Your task to perform on an android device: add a contact in the contacts app Image 0: 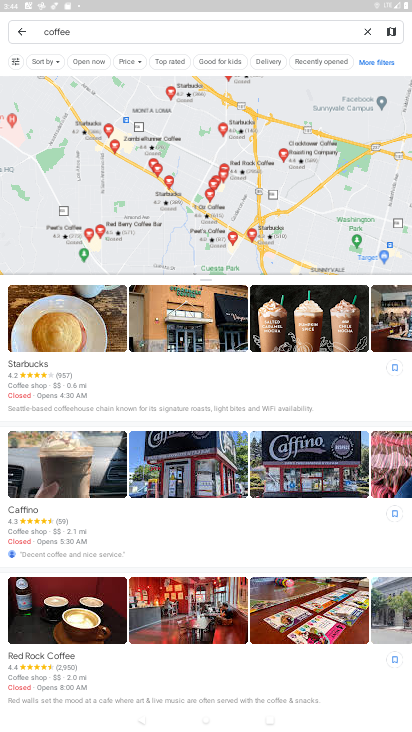
Step 0: press home button
Your task to perform on an android device: add a contact in the contacts app Image 1: 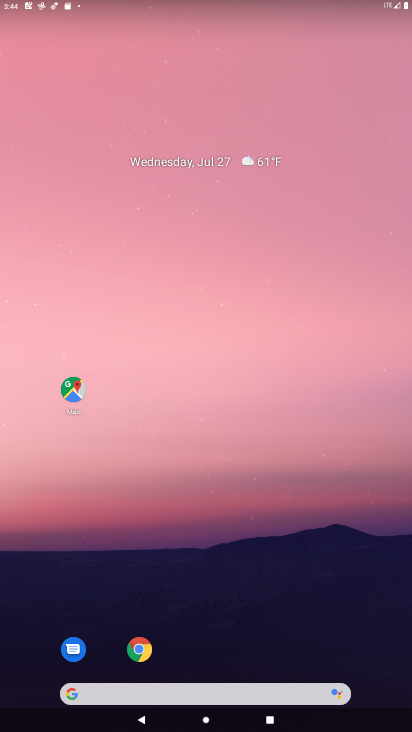
Step 1: drag from (197, 628) to (192, 287)
Your task to perform on an android device: add a contact in the contacts app Image 2: 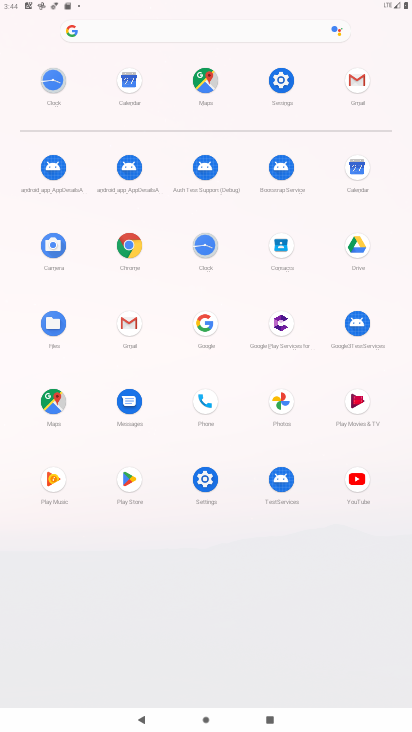
Step 2: click (277, 253)
Your task to perform on an android device: add a contact in the contacts app Image 3: 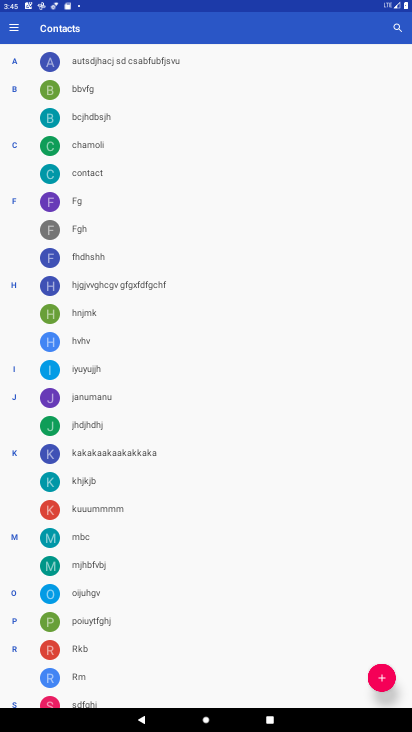
Step 3: press home button
Your task to perform on an android device: add a contact in the contacts app Image 4: 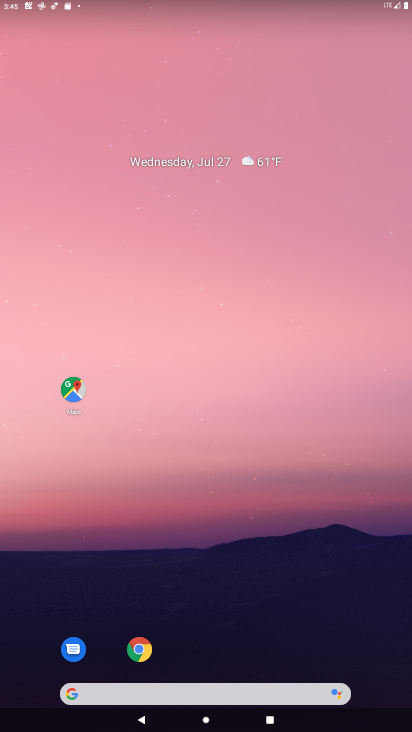
Step 4: drag from (193, 264) to (234, 59)
Your task to perform on an android device: add a contact in the contacts app Image 5: 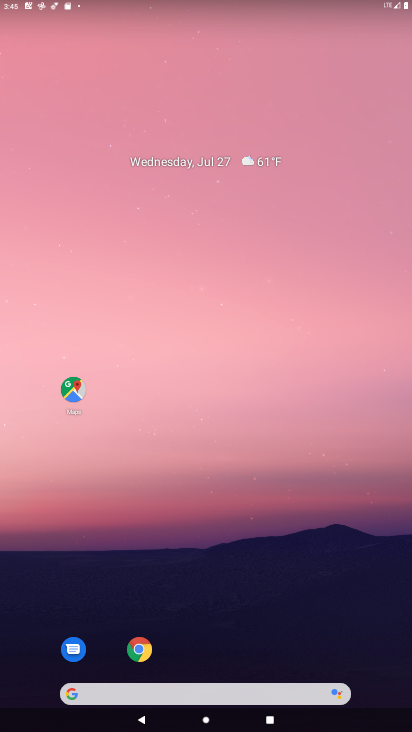
Step 5: drag from (193, 496) to (210, 92)
Your task to perform on an android device: add a contact in the contacts app Image 6: 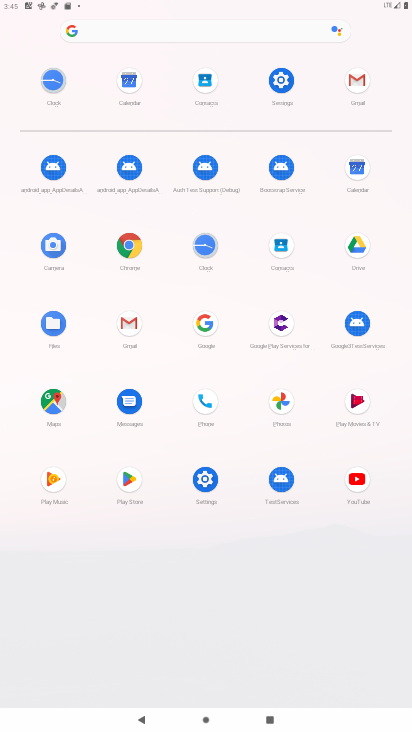
Step 6: click (277, 255)
Your task to perform on an android device: add a contact in the contacts app Image 7: 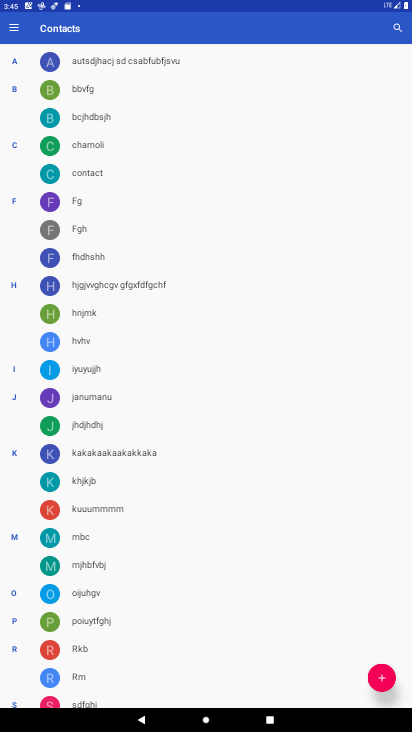
Step 7: click (385, 668)
Your task to perform on an android device: add a contact in the contacts app Image 8: 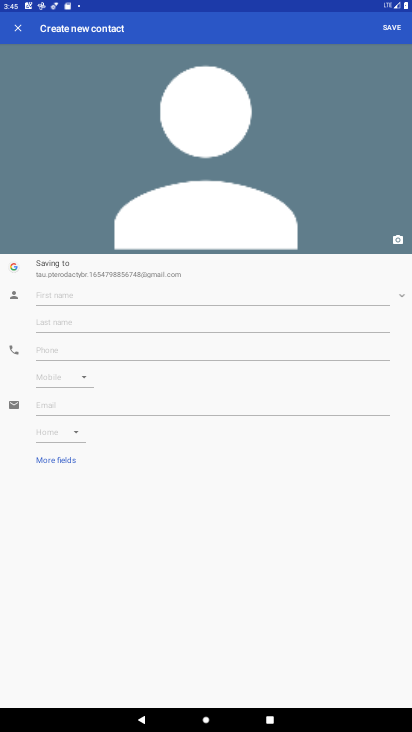
Step 8: click (132, 303)
Your task to perform on an android device: add a contact in the contacts app Image 9: 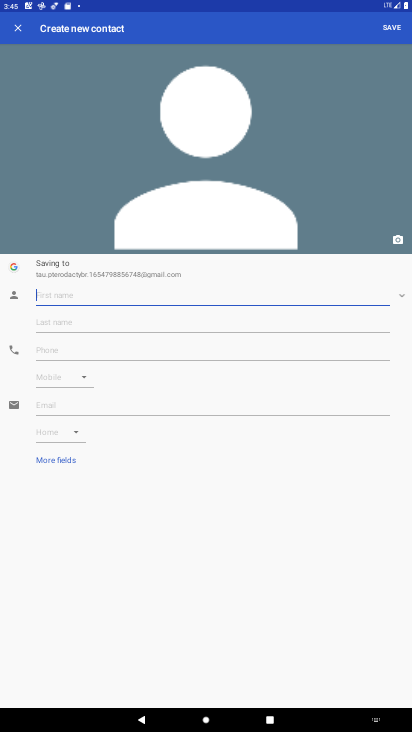
Step 9: type "Niru"
Your task to perform on an android device: add a contact in the contacts app Image 10: 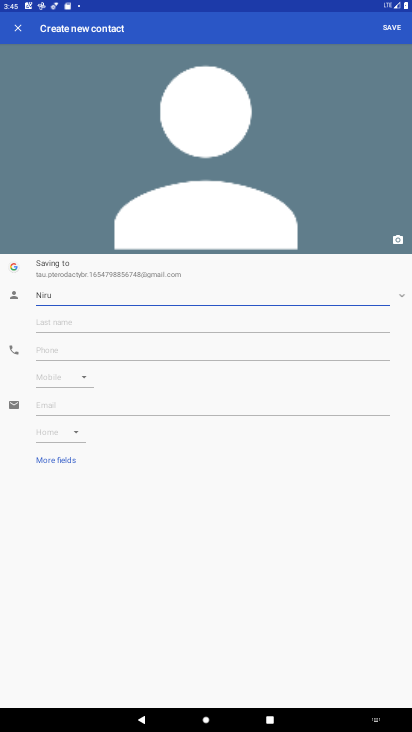
Step 10: click (198, 329)
Your task to perform on an android device: add a contact in the contacts app Image 11: 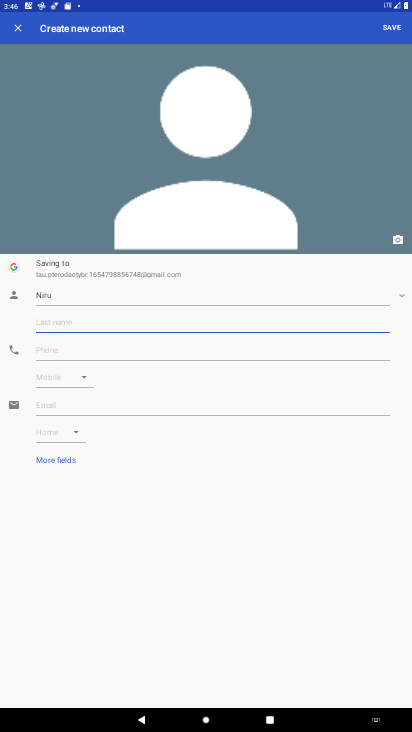
Step 11: type "Biswas"
Your task to perform on an android device: add a contact in the contacts app Image 12: 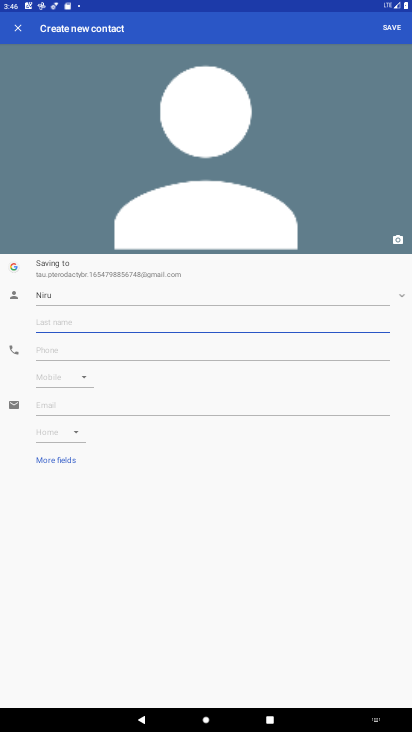
Step 12: click (368, 342)
Your task to perform on an android device: add a contact in the contacts app Image 13: 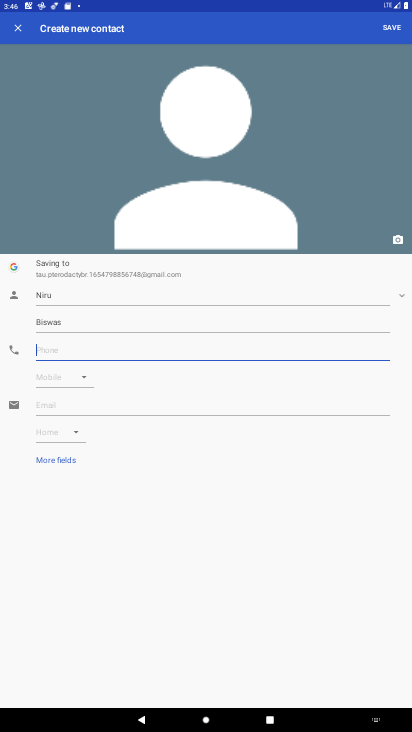
Step 13: type "9889989900"
Your task to perform on an android device: add a contact in the contacts app Image 14: 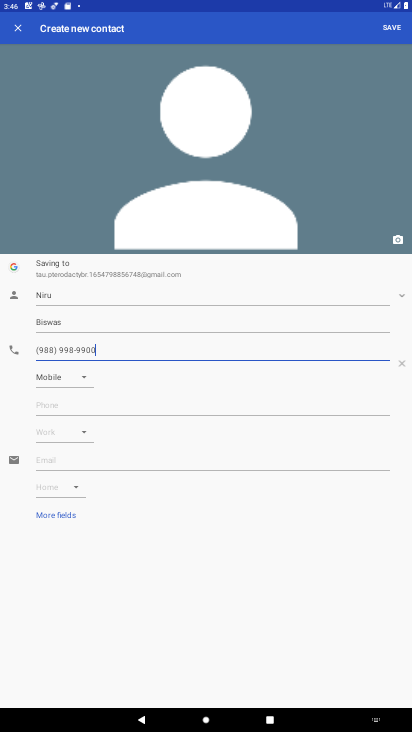
Step 14: click (401, 27)
Your task to perform on an android device: add a contact in the contacts app Image 15: 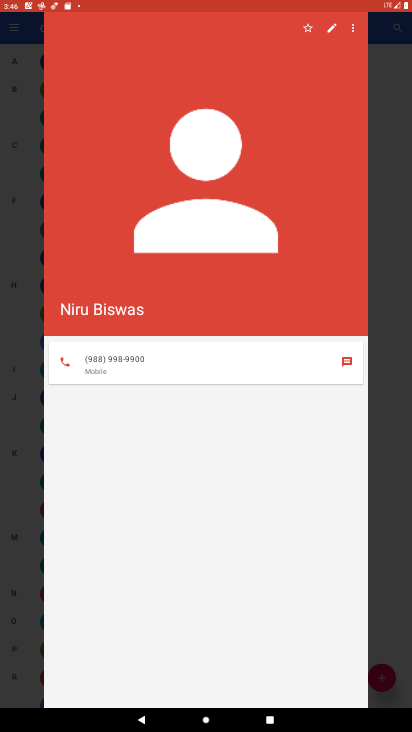
Step 15: task complete